Your task to perform on an android device: open app "LiveIn - Share Your Moment" (install if not already installed) and enter user name: "certifies@gmail.com" and password: "compartmented" Image 0: 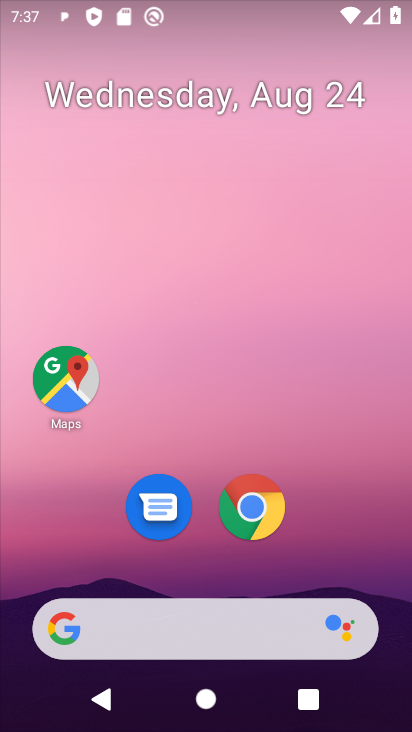
Step 0: drag from (387, 551) to (379, 111)
Your task to perform on an android device: open app "LiveIn - Share Your Moment" (install if not already installed) and enter user name: "certifies@gmail.com" and password: "compartmented" Image 1: 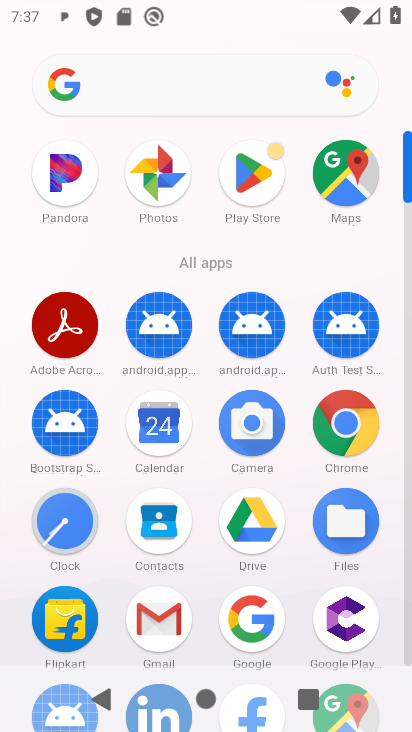
Step 1: click (259, 182)
Your task to perform on an android device: open app "LiveIn - Share Your Moment" (install if not already installed) and enter user name: "certifies@gmail.com" and password: "compartmented" Image 2: 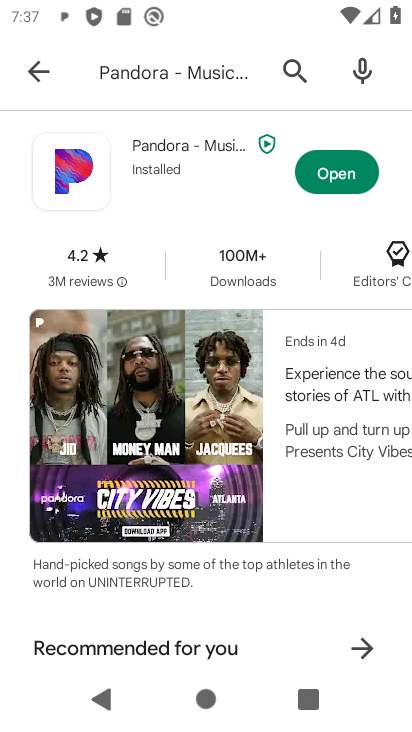
Step 2: press back button
Your task to perform on an android device: open app "LiveIn - Share Your Moment" (install if not already installed) and enter user name: "certifies@gmail.com" and password: "compartmented" Image 3: 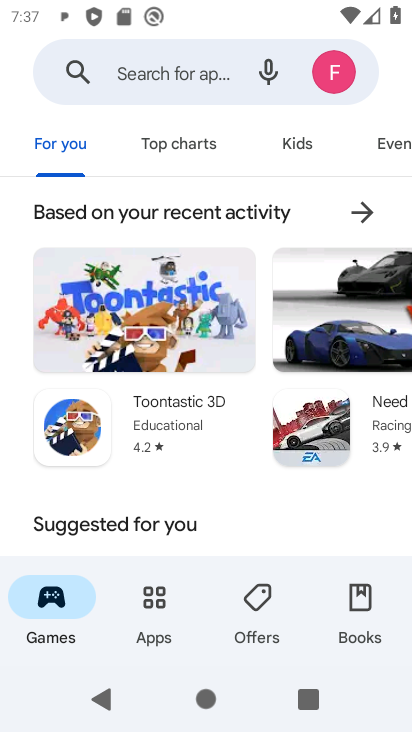
Step 3: click (173, 74)
Your task to perform on an android device: open app "LiveIn - Share Your Moment" (install if not already installed) and enter user name: "certifies@gmail.com" and password: "compartmented" Image 4: 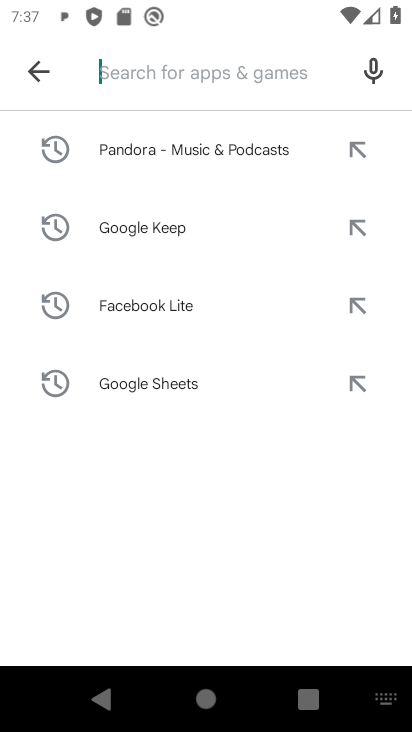
Step 4: type "LiveIn - Share Your Moment"
Your task to perform on an android device: open app "LiveIn - Share Your Moment" (install if not already installed) and enter user name: "certifies@gmail.com" and password: "compartmented" Image 5: 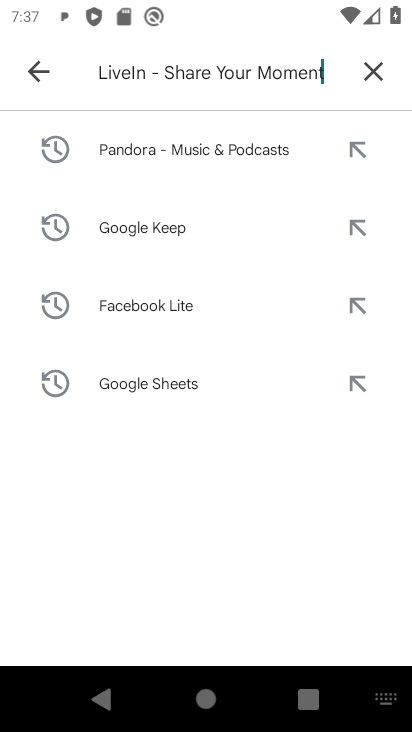
Step 5: press enter
Your task to perform on an android device: open app "LiveIn - Share Your Moment" (install if not already installed) and enter user name: "certifies@gmail.com" and password: "compartmented" Image 6: 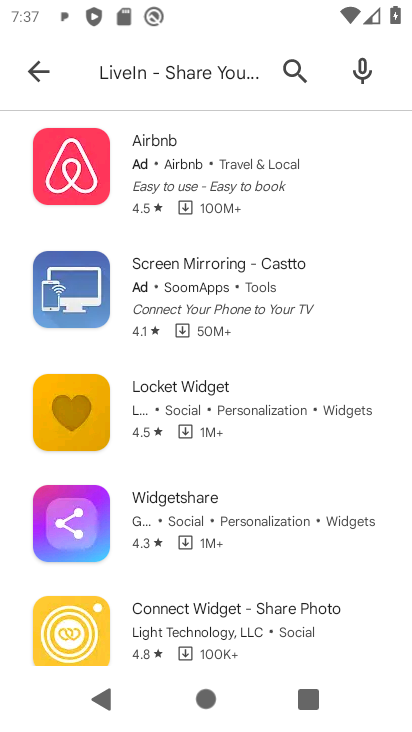
Step 6: task complete